Your task to perform on an android device: open chrome privacy settings Image 0: 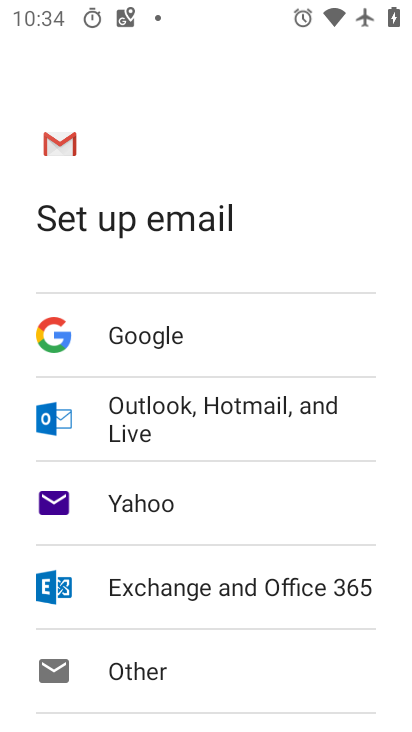
Step 0: press home button
Your task to perform on an android device: open chrome privacy settings Image 1: 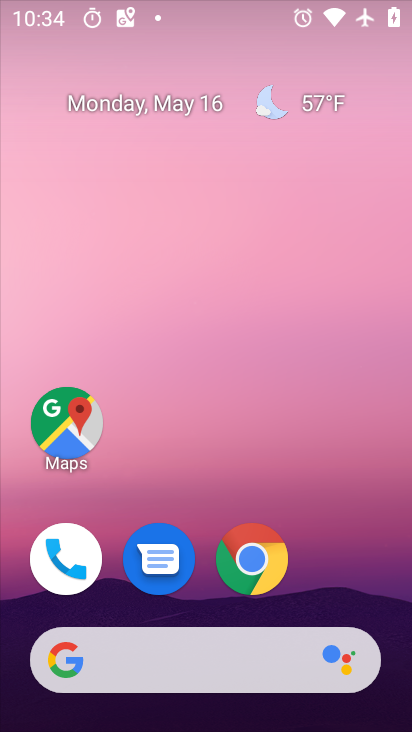
Step 1: drag from (356, 570) to (237, 138)
Your task to perform on an android device: open chrome privacy settings Image 2: 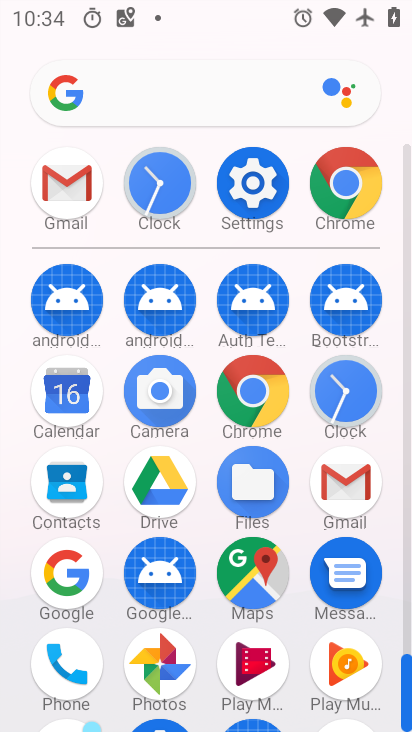
Step 2: click (267, 159)
Your task to perform on an android device: open chrome privacy settings Image 3: 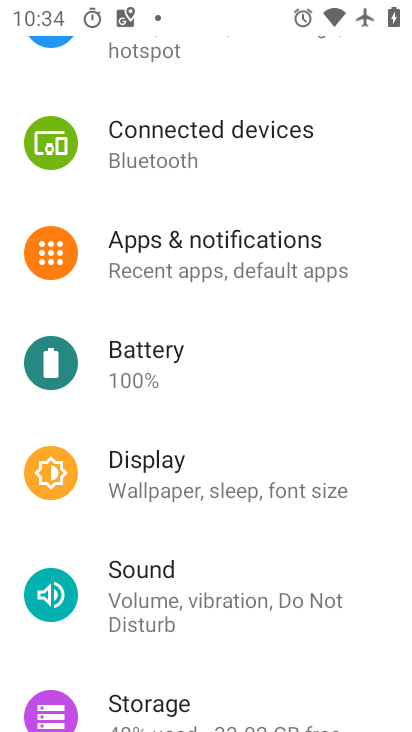
Step 3: drag from (224, 685) to (271, 184)
Your task to perform on an android device: open chrome privacy settings Image 4: 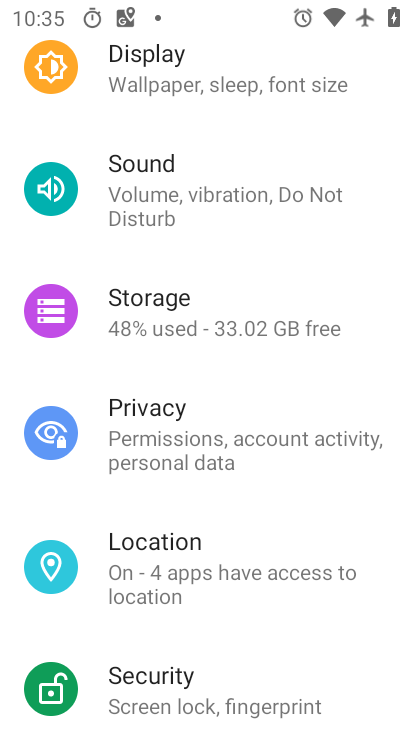
Step 4: click (168, 445)
Your task to perform on an android device: open chrome privacy settings Image 5: 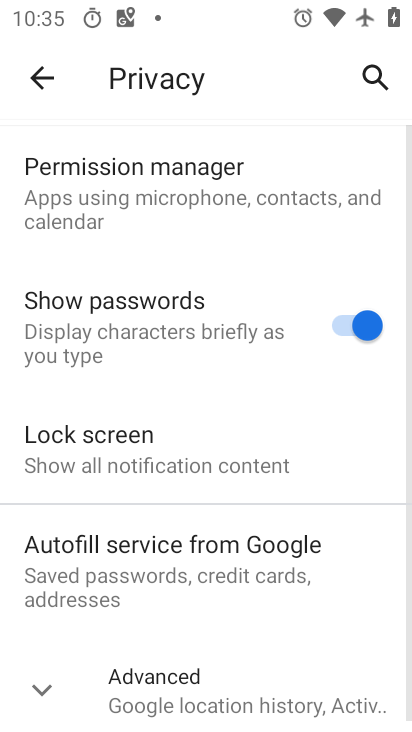
Step 5: press home button
Your task to perform on an android device: open chrome privacy settings Image 6: 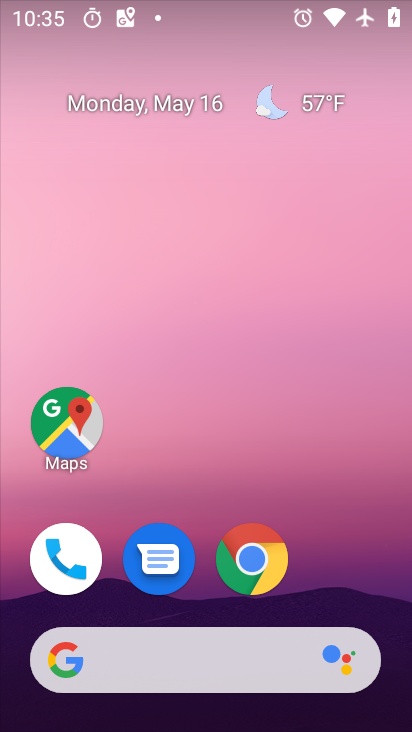
Step 6: click (248, 558)
Your task to perform on an android device: open chrome privacy settings Image 7: 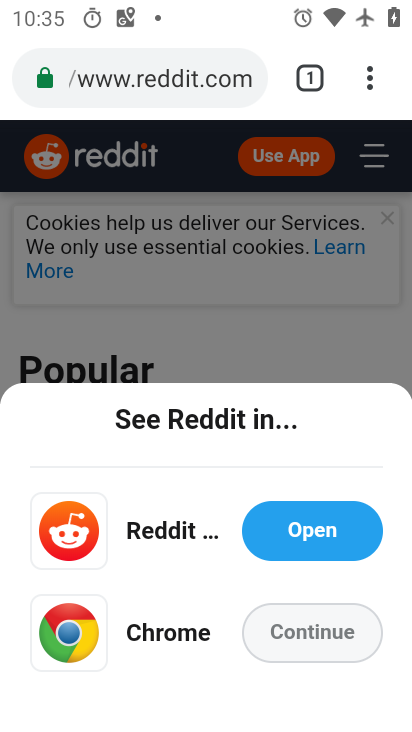
Step 7: drag from (377, 87) to (226, 605)
Your task to perform on an android device: open chrome privacy settings Image 8: 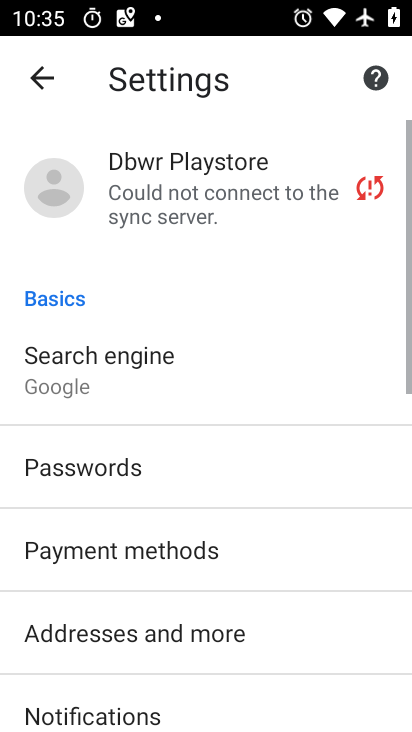
Step 8: drag from (216, 547) to (267, 125)
Your task to perform on an android device: open chrome privacy settings Image 9: 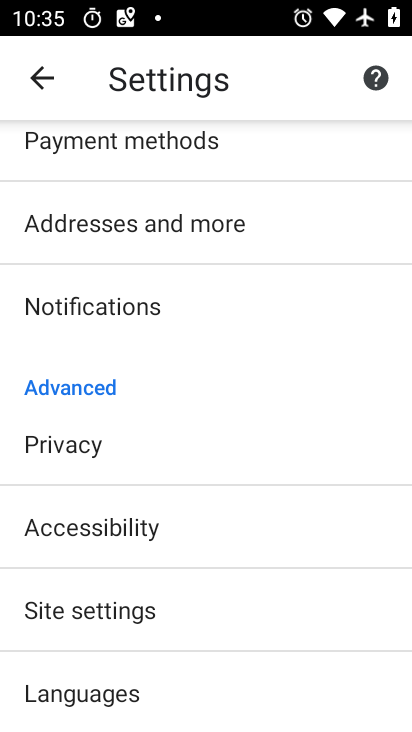
Step 9: click (72, 457)
Your task to perform on an android device: open chrome privacy settings Image 10: 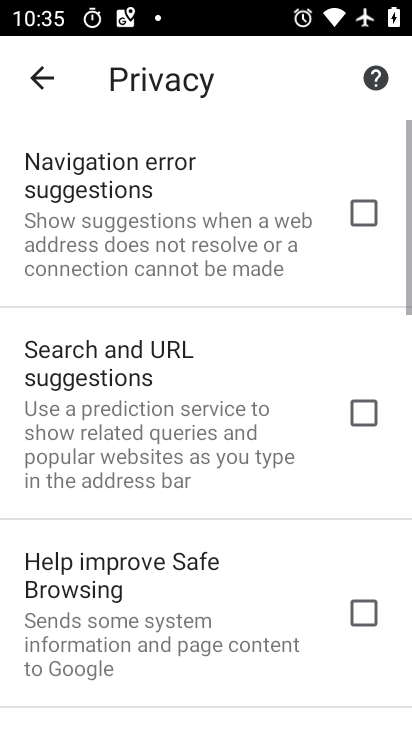
Step 10: task complete